Your task to perform on an android device: turn smart compose on in the gmail app Image 0: 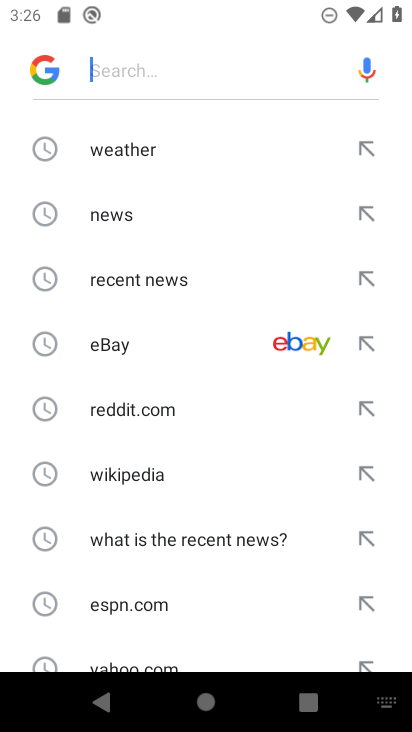
Step 0: press back button
Your task to perform on an android device: turn smart compose on in the gmail app Image 1: 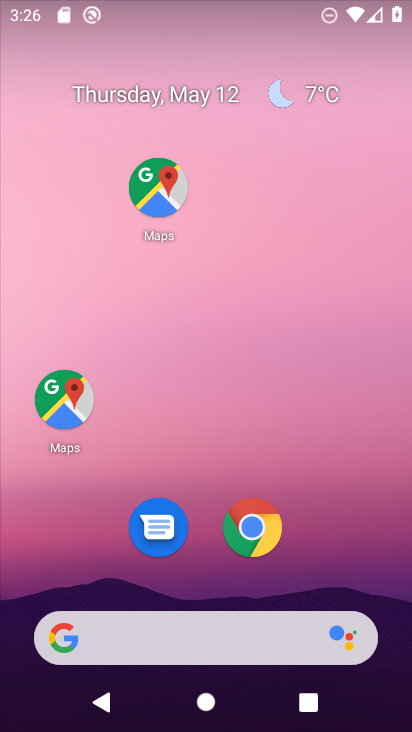
Step 1: drag from (202, 588) to (172, 1)
Your task to perform on an android device: turn smart compose on in the gmail app Image 2: 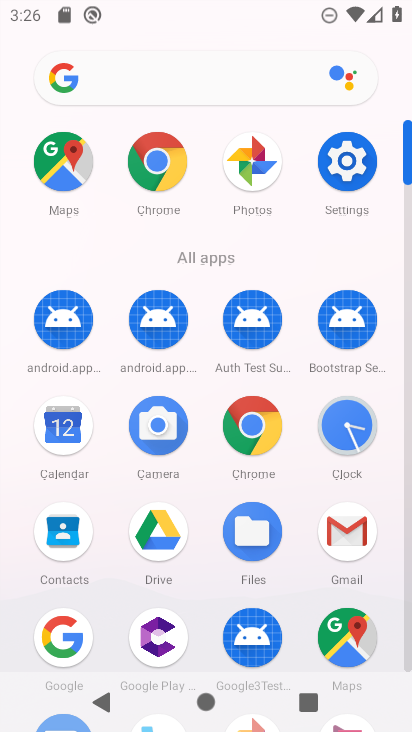
Step 2: click (345, 516)
Your task to perform on an android device: turn smart compose on in the gmail app Image 3: 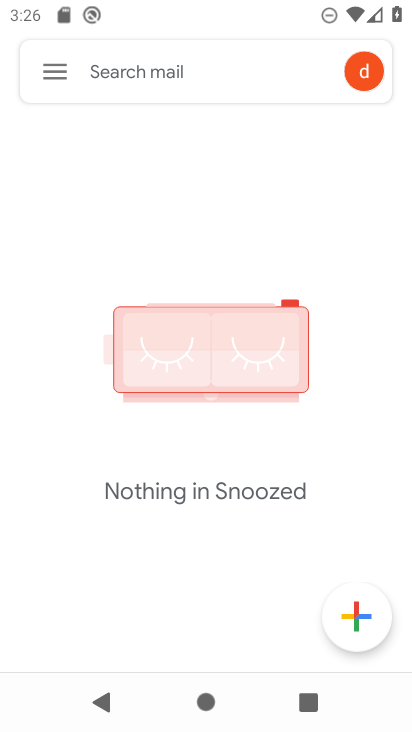
Step 3: click (40, 65)
Your task to perform on an android device: turn smart compose on in the gmail app Image 4: 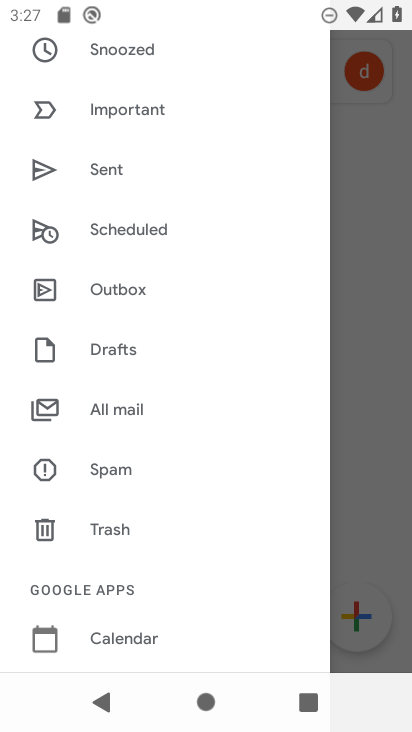
Step 4: drag from (119, 624) to (95, 74)
Your task to perform on an android device: turn smart compose on in the gmail app Image 5: 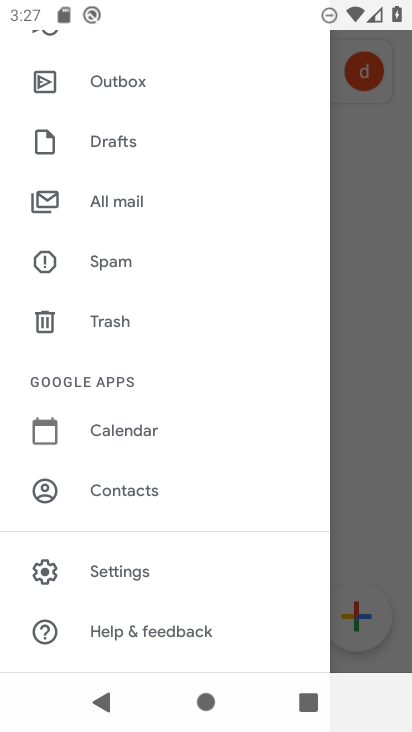
Step 5: click (125, 560)
Your task to perform on an android device: turn smart compose on in the gmail app Image 6: 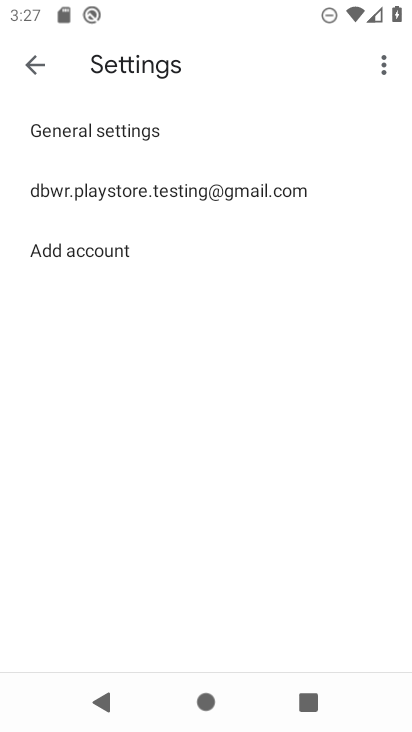
Step 6: click (117, 190)
Your task to perform on an android device: turn smart compose on in the gmail app Image 7: 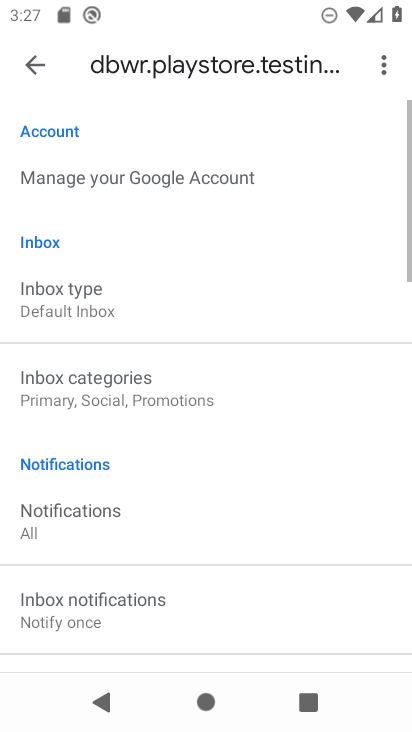
Step 7: task complete